Your task to perform on an android device: turn notification dots on Image 0: 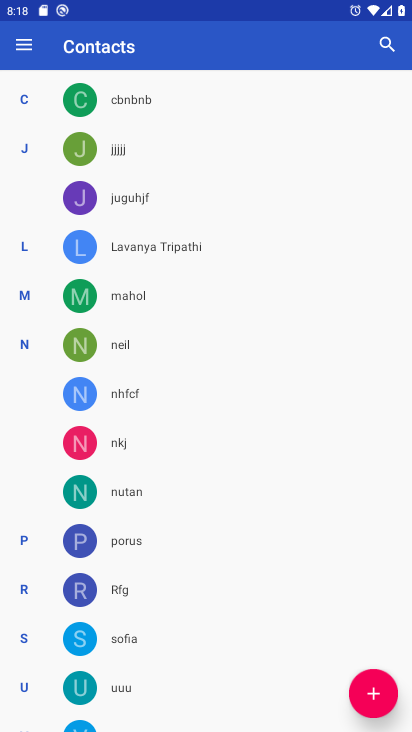
Step 0: press home button
Your task to perform on an android device: turn notification dots on Image 1: 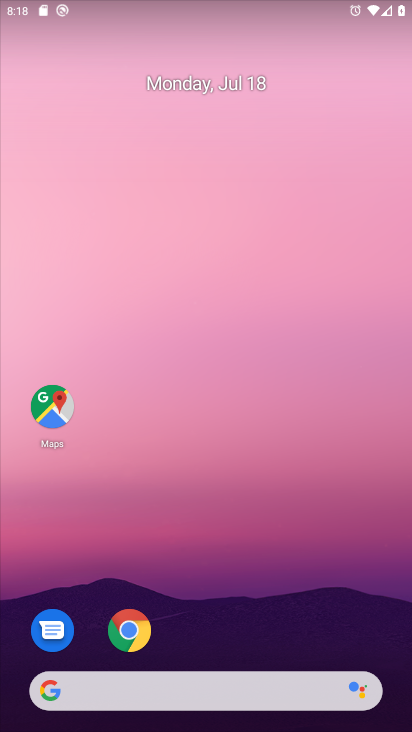
Step 1: drag from (195, 632) to (231, 89)
Your task to perform on an android device: turn notification dots on Image 2: 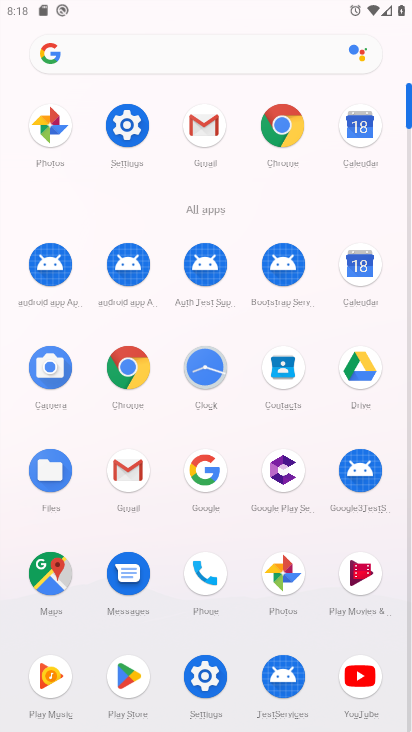
Step 2: click (144, 113)
Your task to perform on an android device: turn notification dots on Image 3: 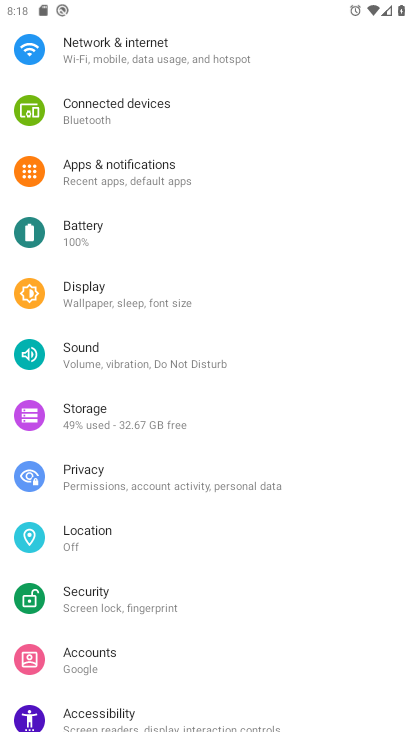
Step 3: click (196, 178)
Your task to perform on an android device: turn notification dots on Image 4: 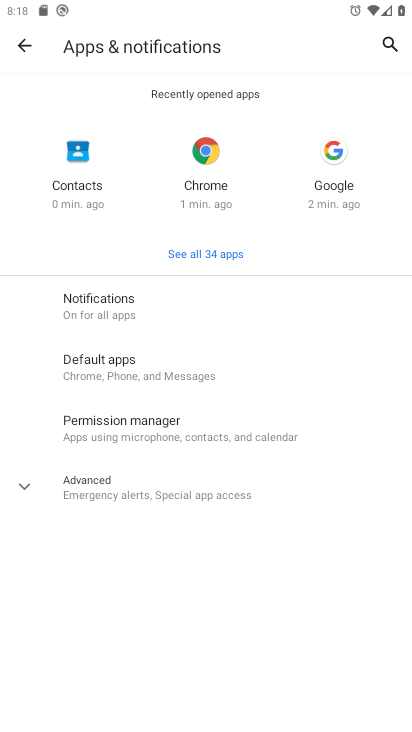
Step 4: click (130, 313)
Your task to perform on an android device: turn notification dots on Image 5: 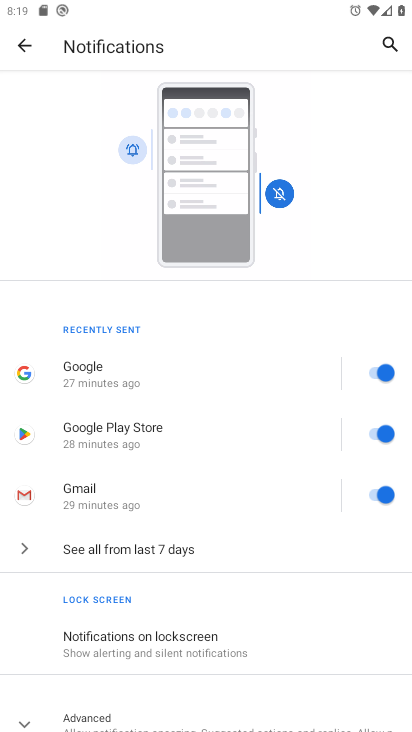
Step 5: drag from (186, 661) to (224, 386)
Your task to perform on an android device: turn notification dots on Image 6: 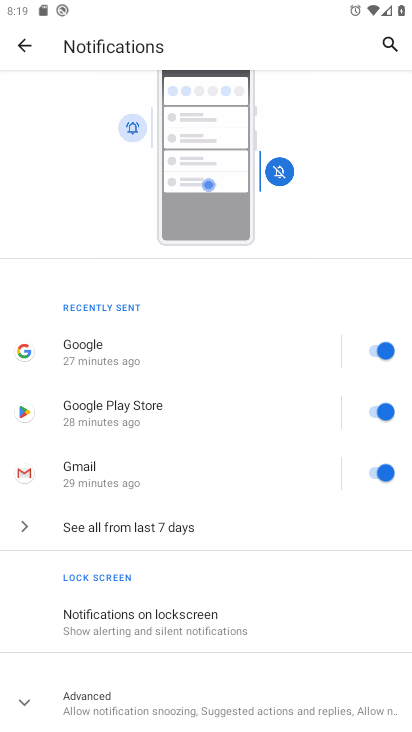
Step 6: click (100, 693)
Your task to perform on an android device: turn notification dots on Image 7: 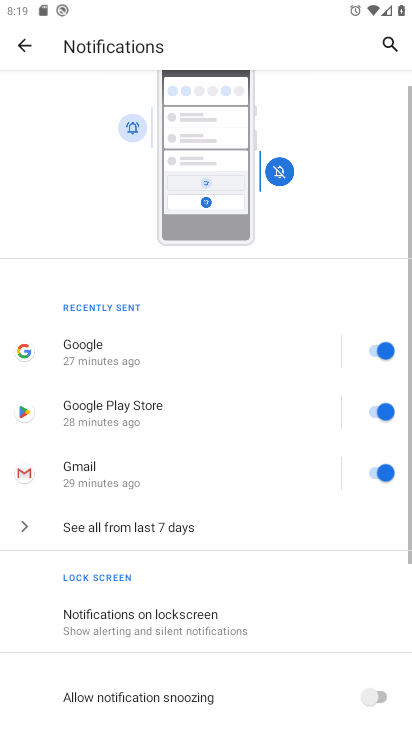
Step 7: task complete